Your task to perform on an android device: Go to CNN.com Image 0: 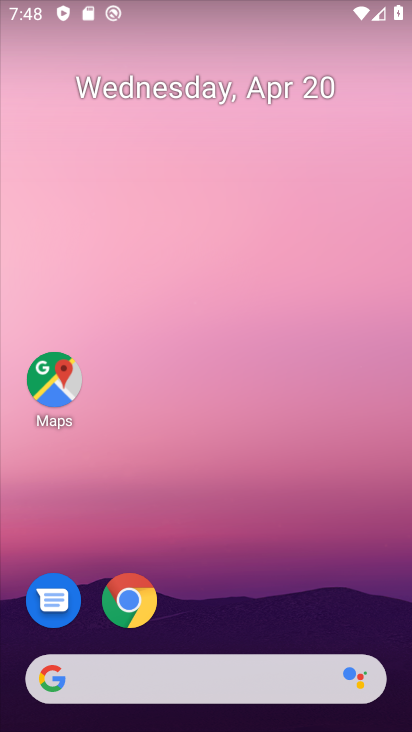
Step 0: click (119, 598)
Your task to perform on an android device: Go to CNN.com Image 1: 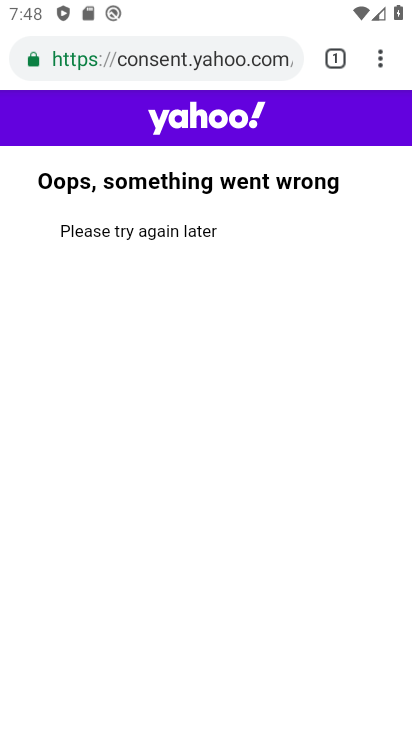
Step 1: click (255, 58)
Your task to perform on an android device: Go to CNN.com Image 2: 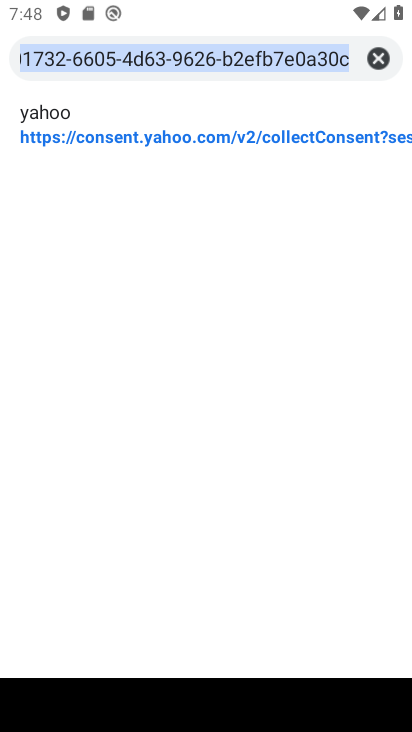
Step 2: type "CNN.com"
Your task to perform on an android device: Go to CNN.com Image 3: 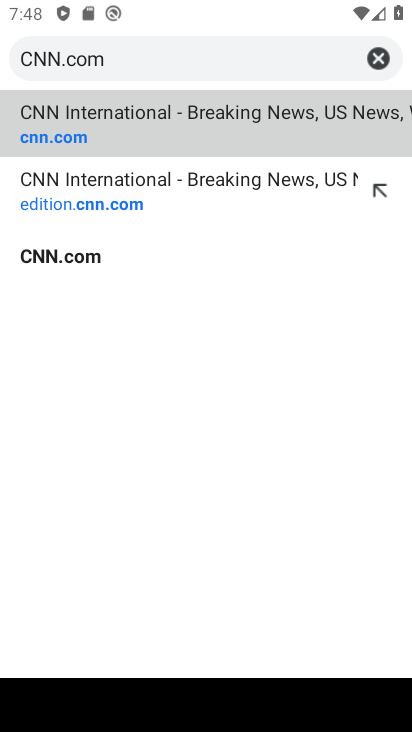
Step 3: click (61, 125)
Your task to perform on an android device: Go to CNN.com Image 4: 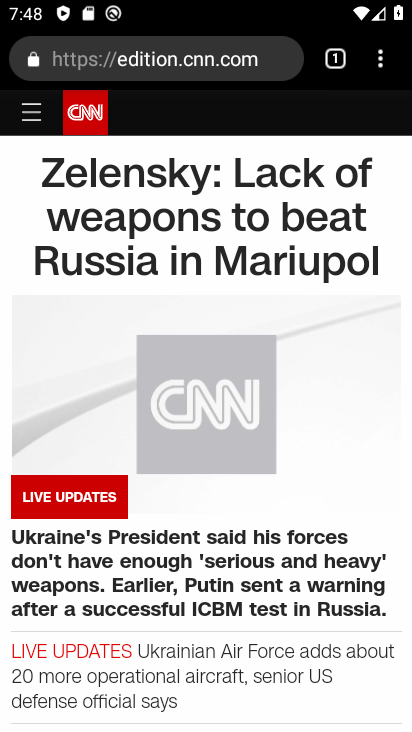
Step 4: task complete